Your task to perform on an android device: Show me popular videos on Youtube Image 0: 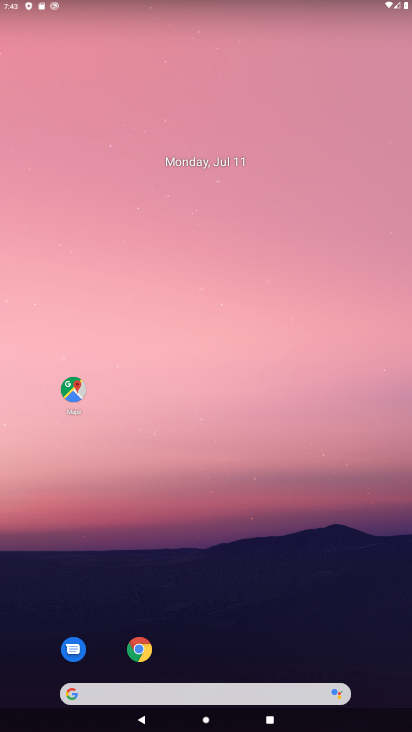
Step 0: drag from (270, 596) to (272, 406)
Your task to perform on an android device: Show me popular videos on Youtube Image 1: 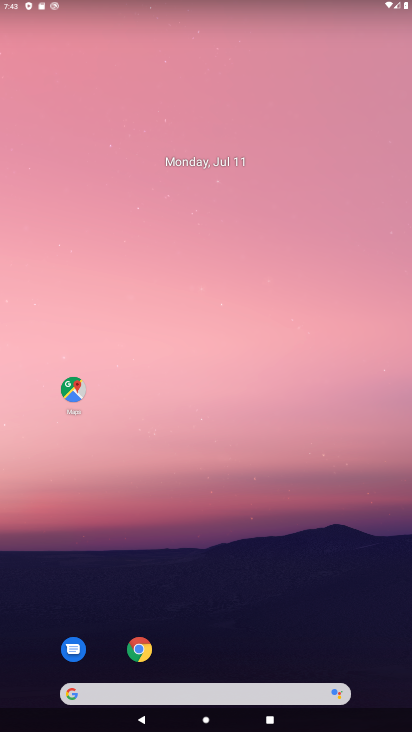
Step 1: drag from (244, 605) to (267, 1)
Your task to perform on an android device: Show me popular videos on Youtube Image 2: 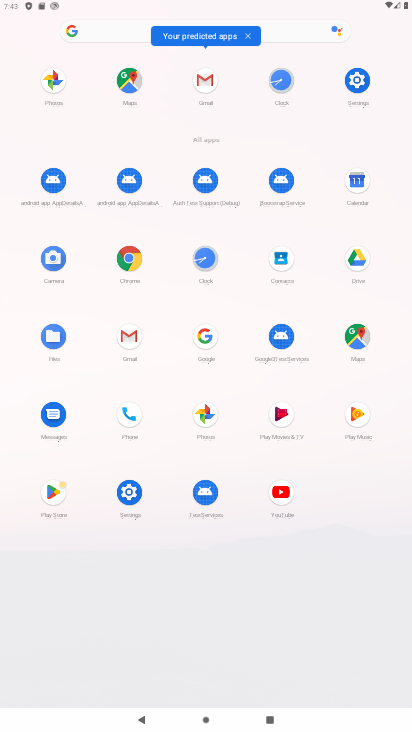
Step 2: click (277, 494)
Your task to perform on an android device: Show me popular videos on Youtube Image 3: 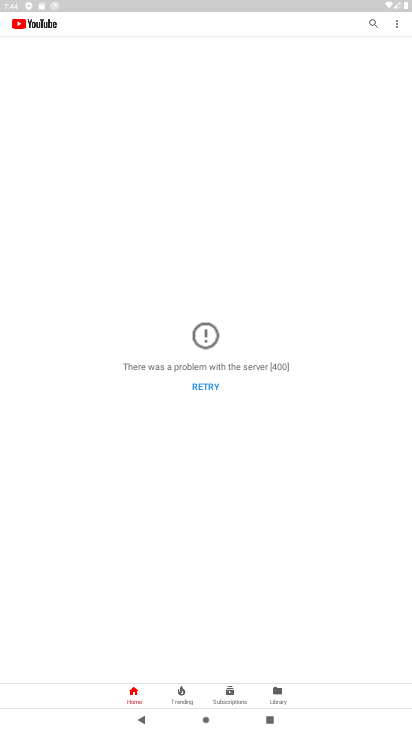
Step 3: click (208, 384)
Your task to perform on an android device: Show me popular videos on Youtube Image 4: 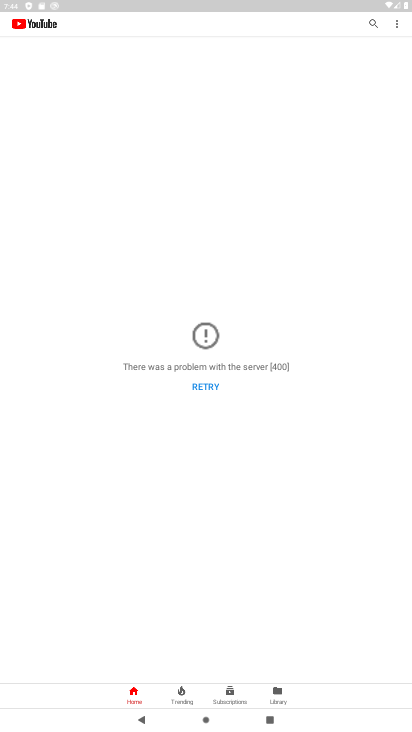
Step 4: click (208, 384)
Your task to perform on an android device: Show me popular videos on Youtube Image 5: 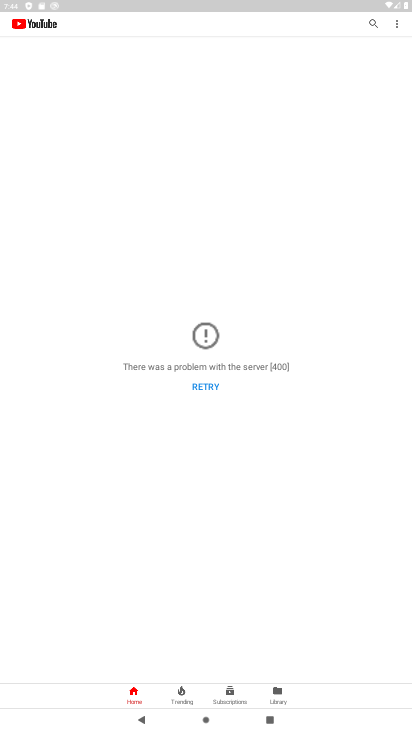
Step 5: task complete